Your task to perform on an android device: turn off picture-in-picture Image 0: 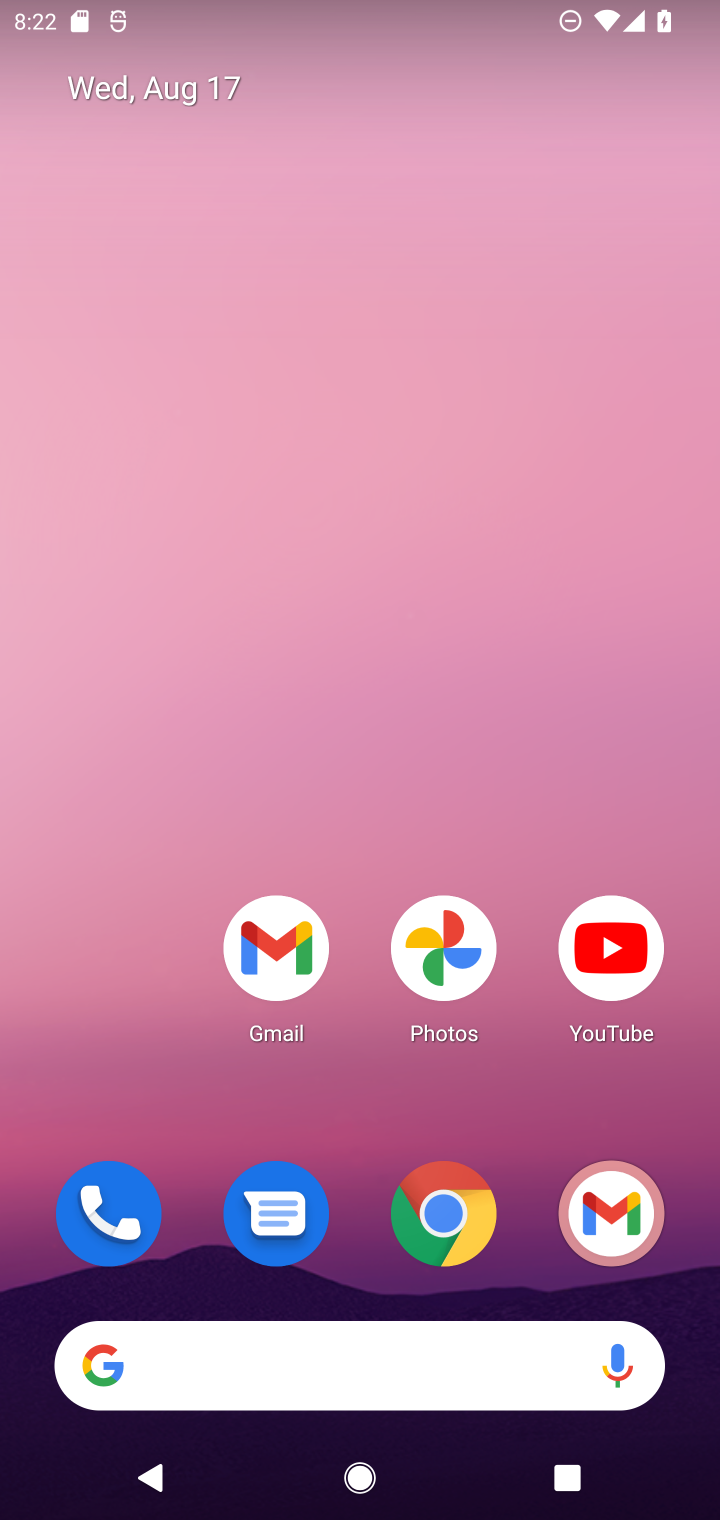
Step 0: click (435, 1243)
Your task to perform on an android device: turn off picture-in-picture Image 1: 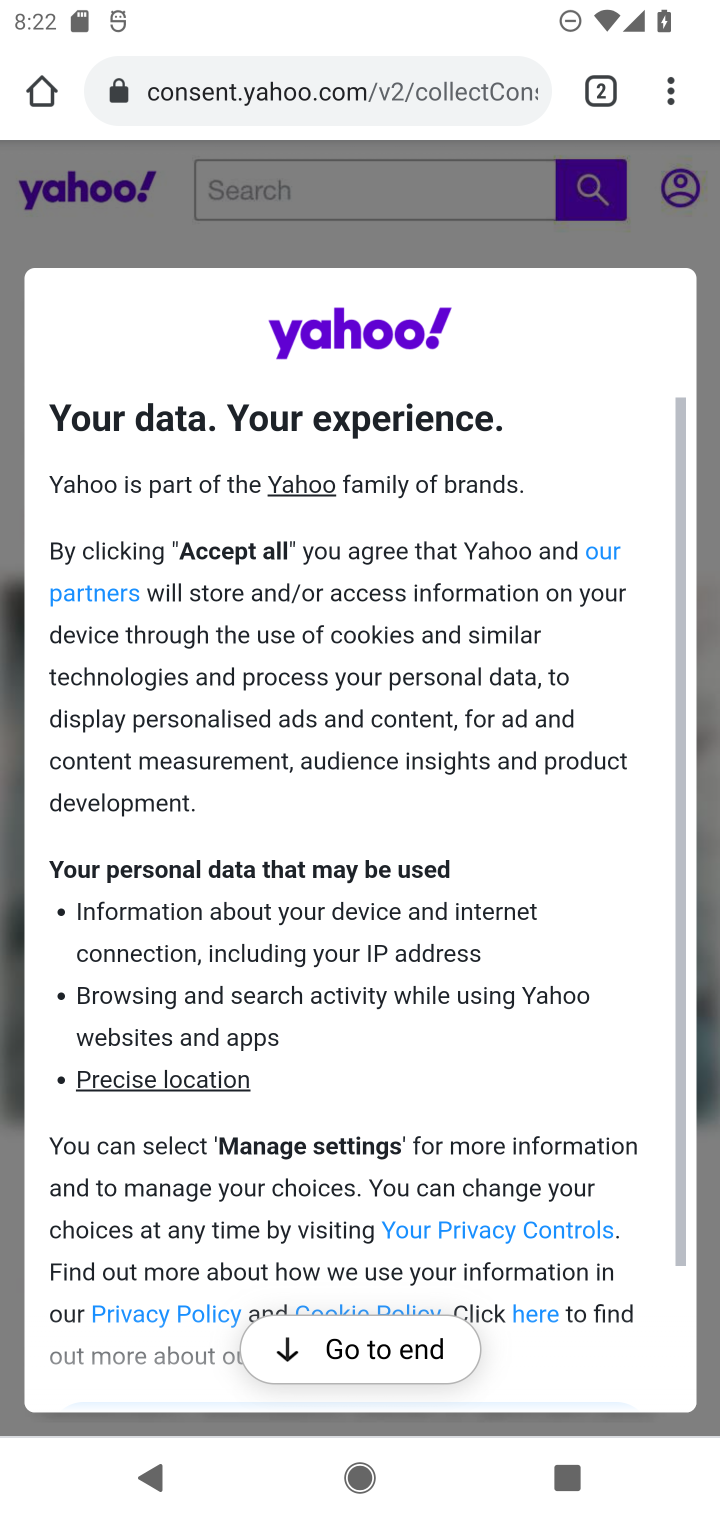
Step 1: click (675, 70)
Your task to perform on an android device: turn off picture-in-picture Image 2: 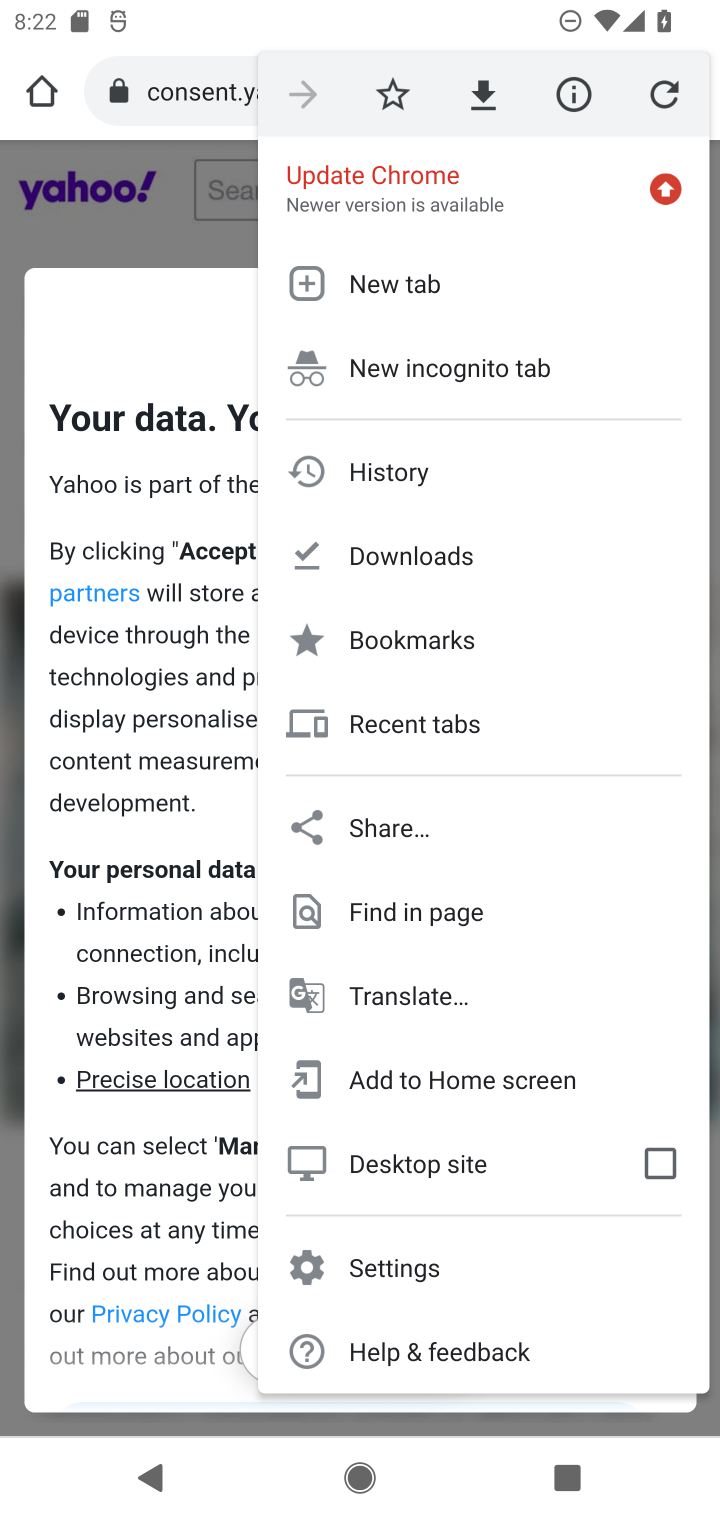
Step 2: click (439, 1274)
Your task to perform on an android device: turn off picture-in-picture Image 3: 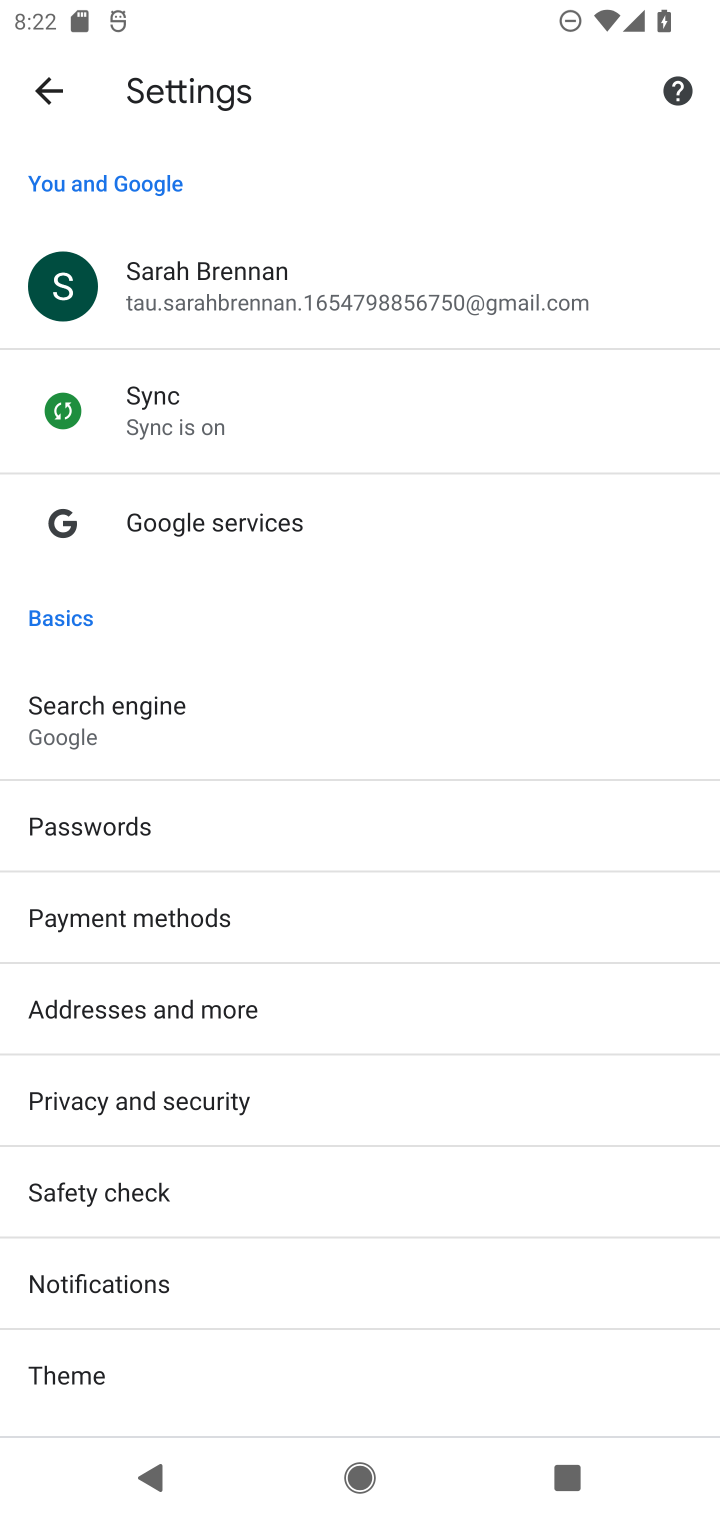
Step 3: drag from (237, 1266) to (323, 600)
Your task to perform on an android device: turn off picture-in-picture Image 4: 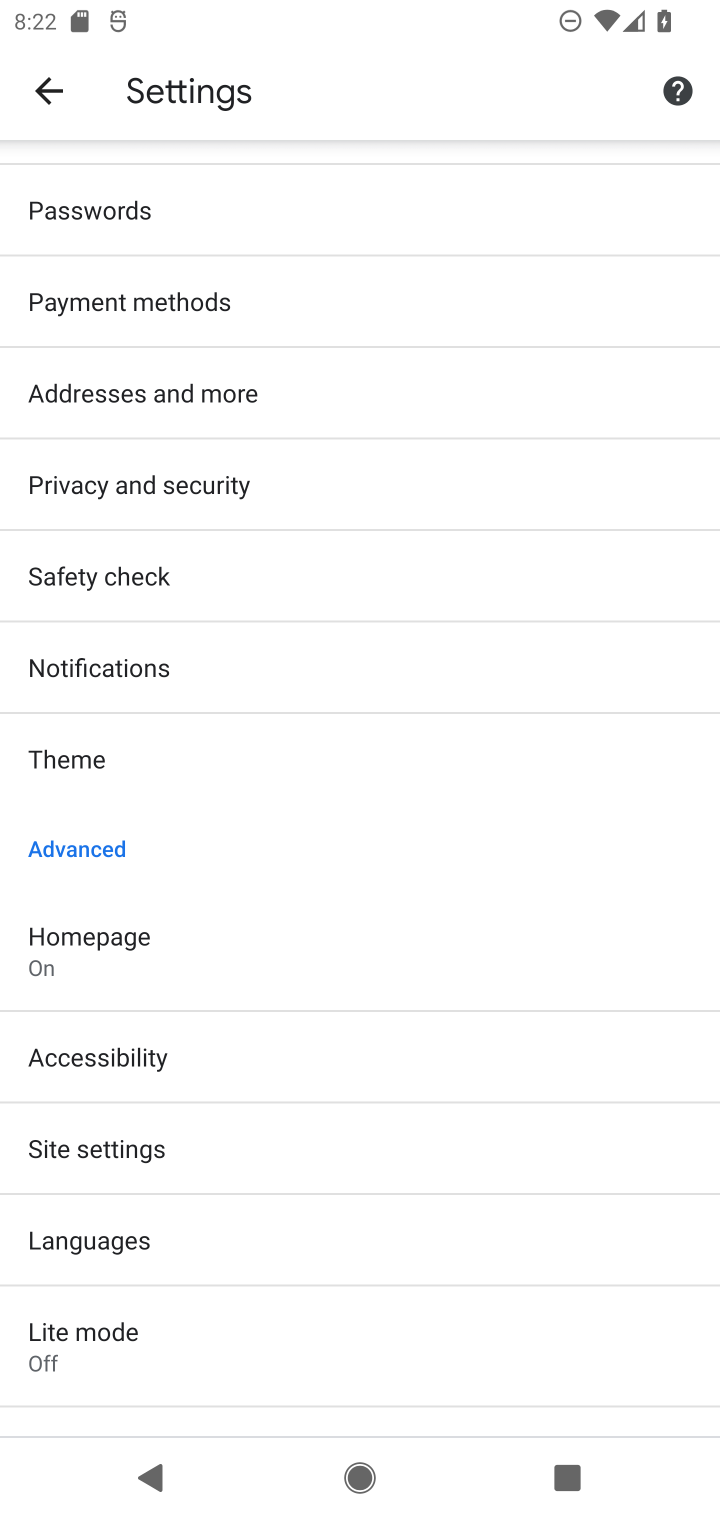
Step 4: click (353, 1146)
Your task to perform on an android device: turn off picture-in-picture Image 5: 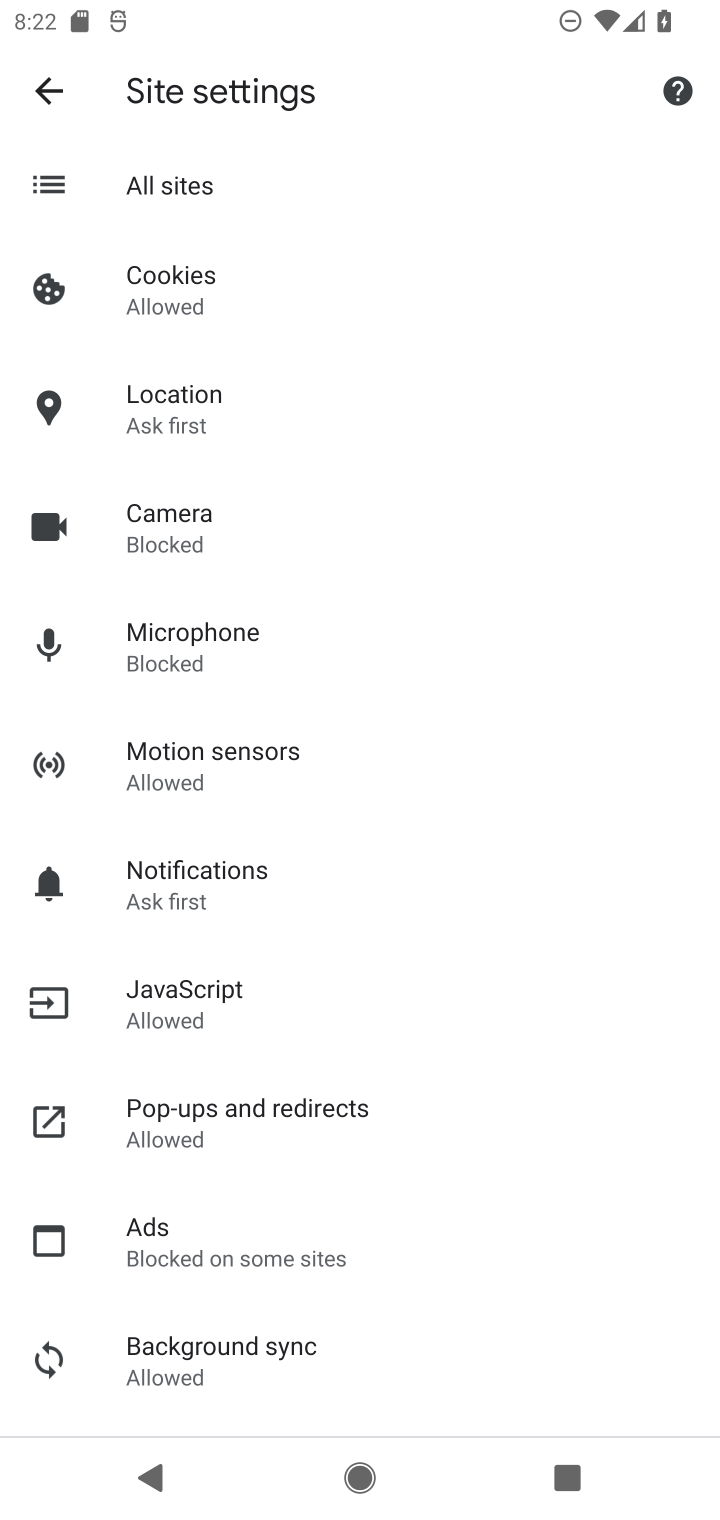
Step 5: drag from (270, 1246) to (373, 497)
Your task to perform on an android device: turn off picture-in-picture Image 6: 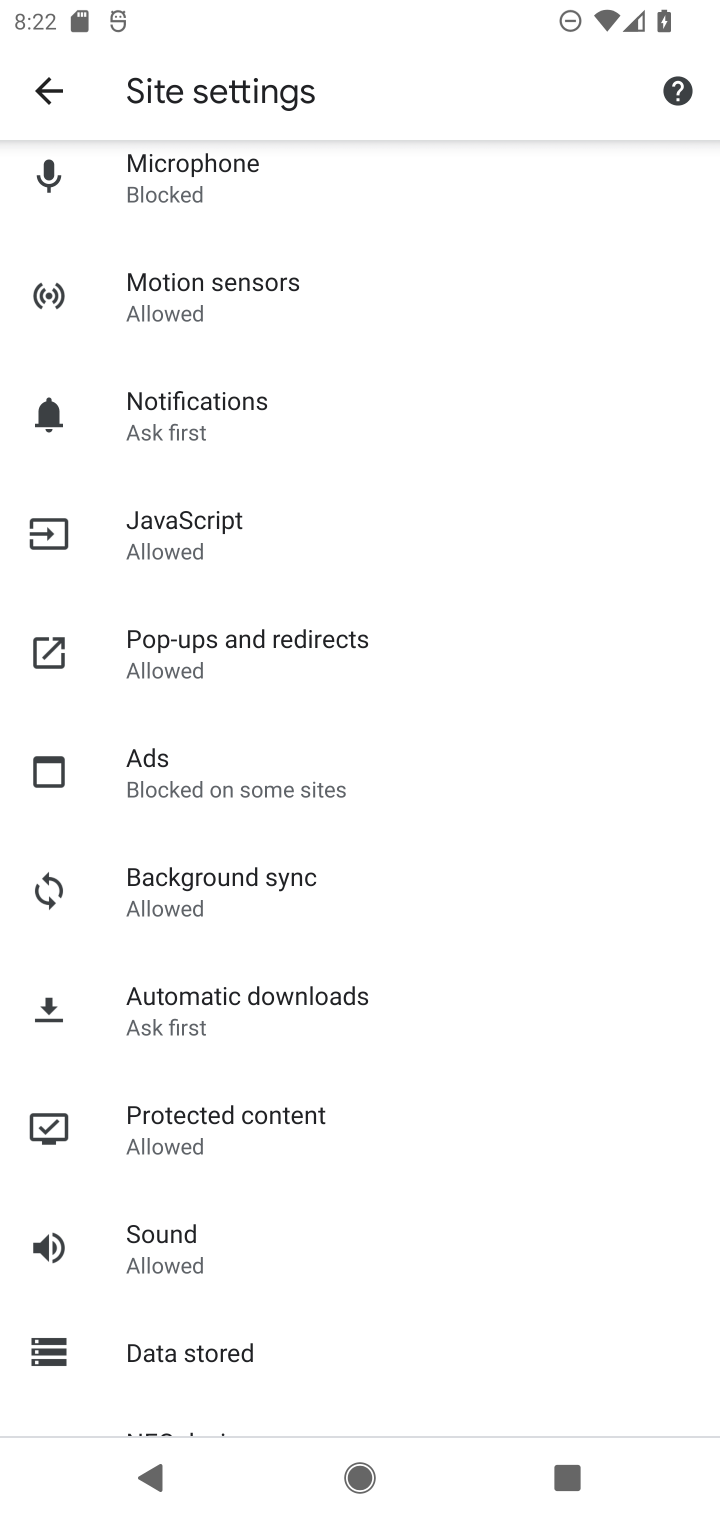
Step 6: click (314, 1303)
Your task to perform on an android device: turn off picture-in-picture Image 7: 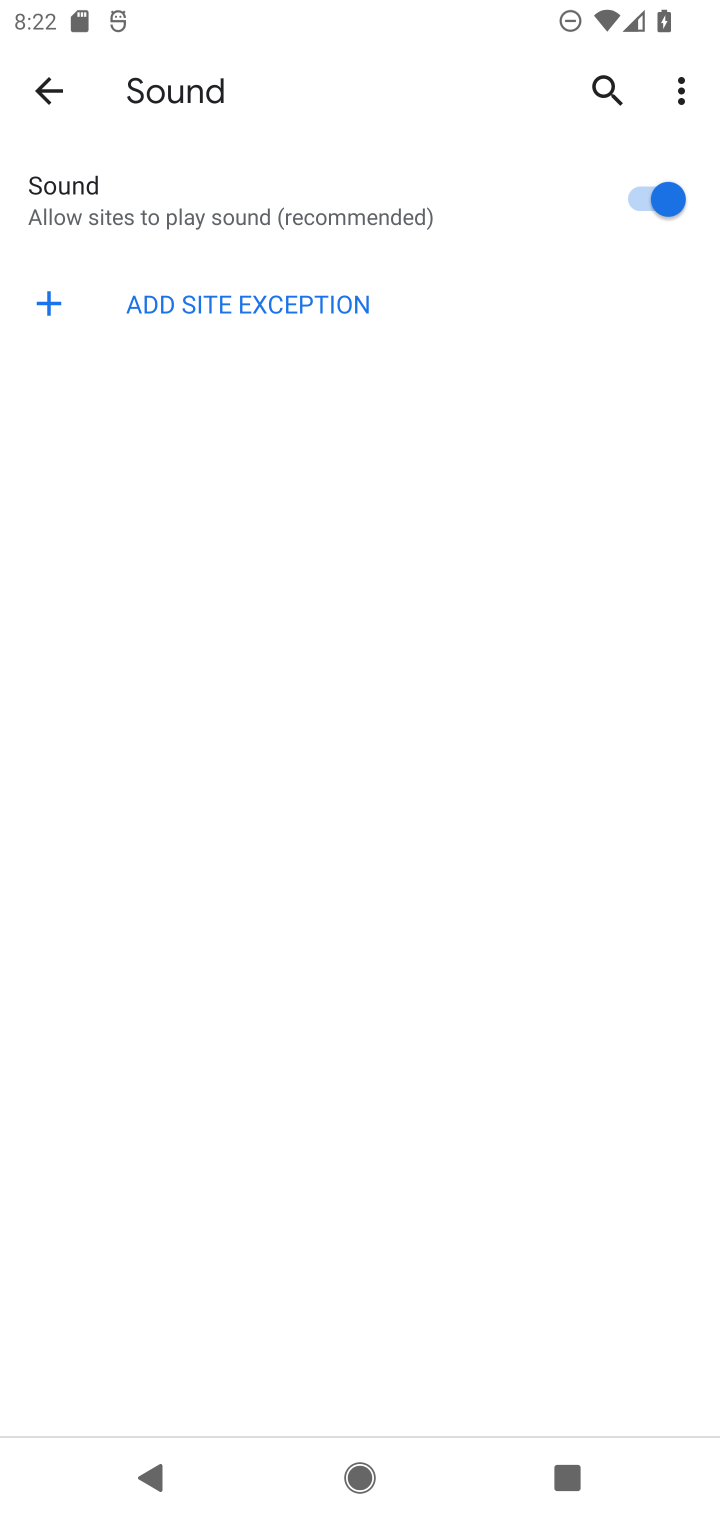
Step 7: task complete